Your task to perform on an android device: Is it going to rain today? Image 0: 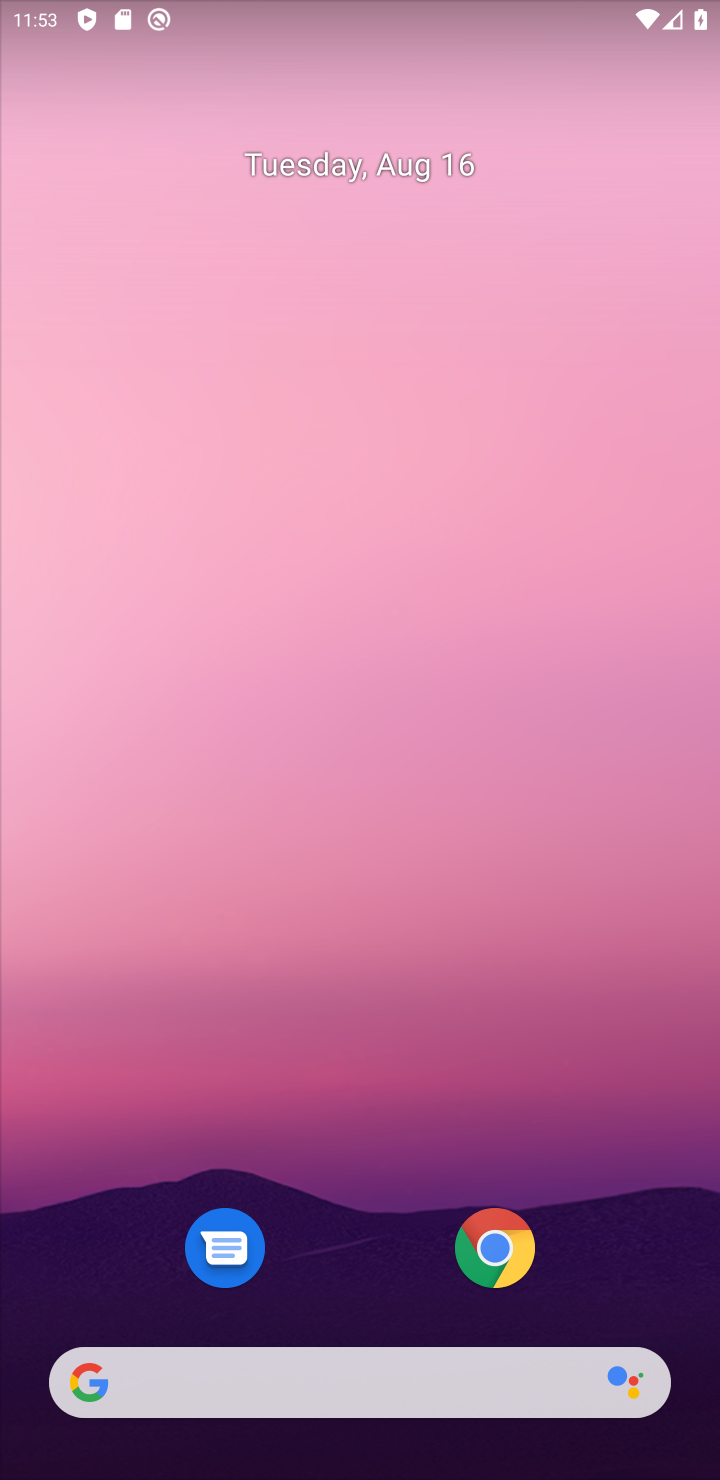
Step 0: drag from (405, 1010) to (438, 301)
Your task to perform on an android device: Is it going to rain today? Image 1: 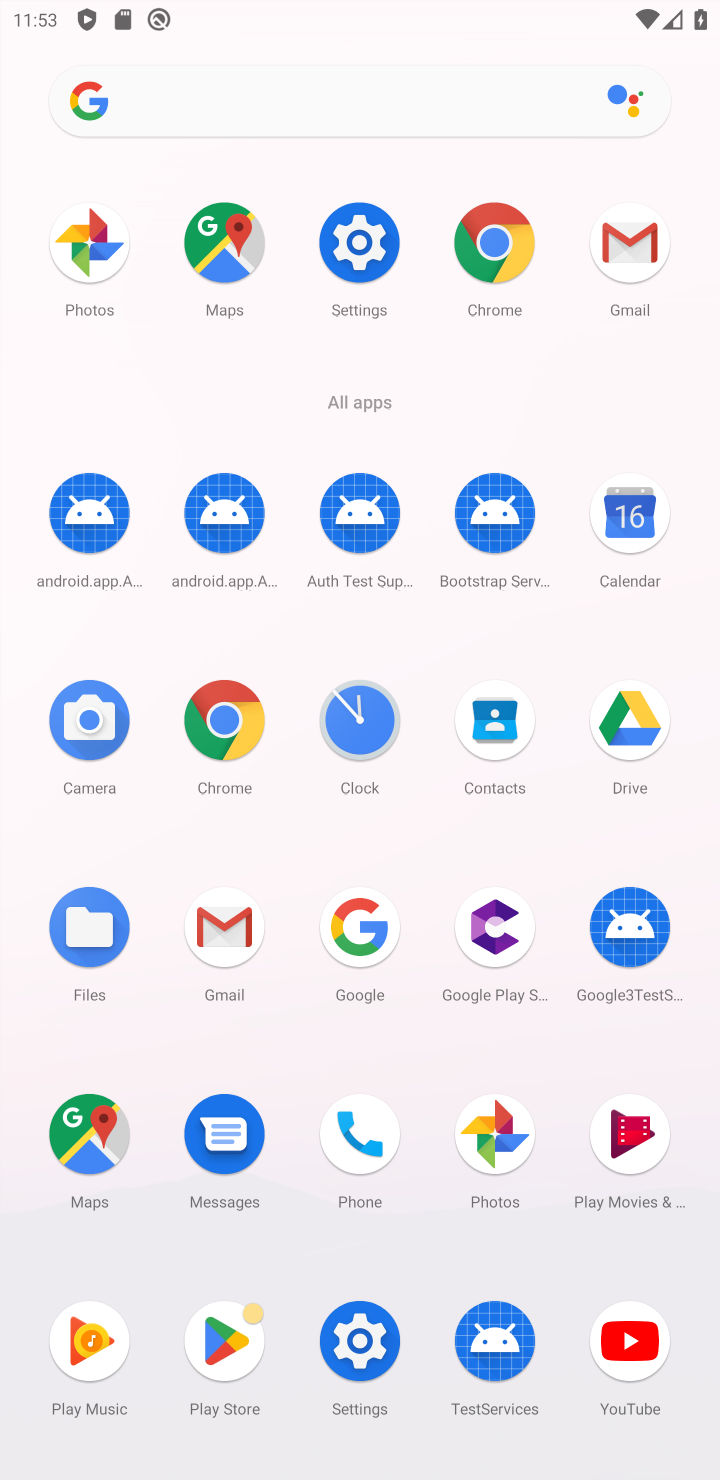
Step 1: task complete